Your task to perform on an android device: turn off priority inbox in the gmail app Image 0: 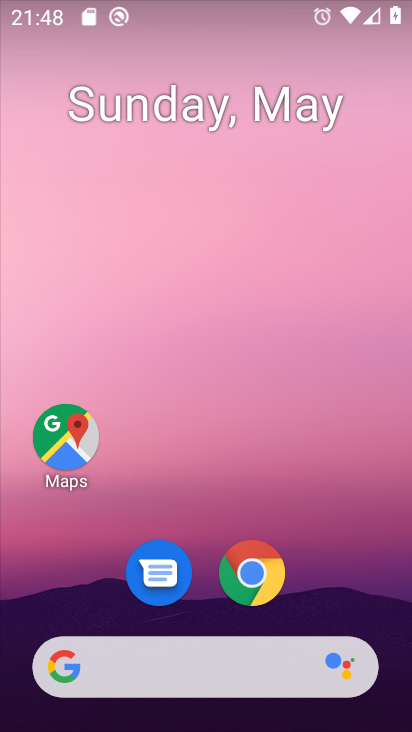
Step 0: drag from (202, 480) to (164, 11)
Your task to perform on an android device: turn off priority inbox in the gmail app Image 1: 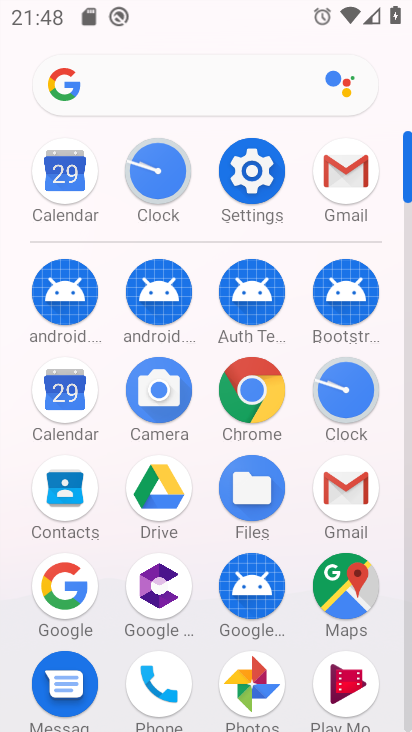
Step 1: click (340, 173)
Your task to perform on an android device: turn off priority inbox in the gmail app Image 2: 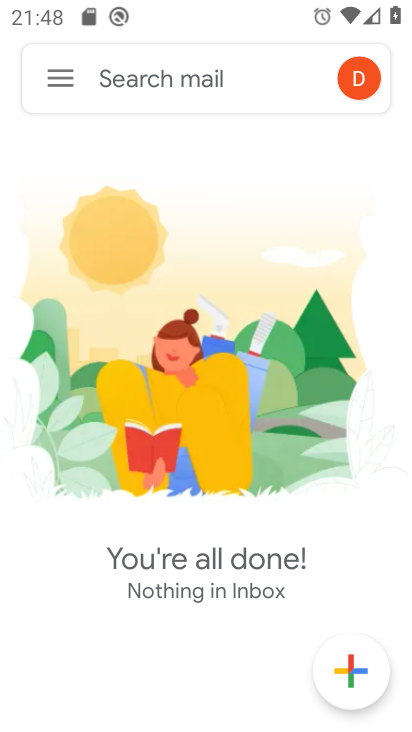
Step 2: click (59, 75)
Your task to perform on an android device: turn off priority inbox in the gmail app Image 3: 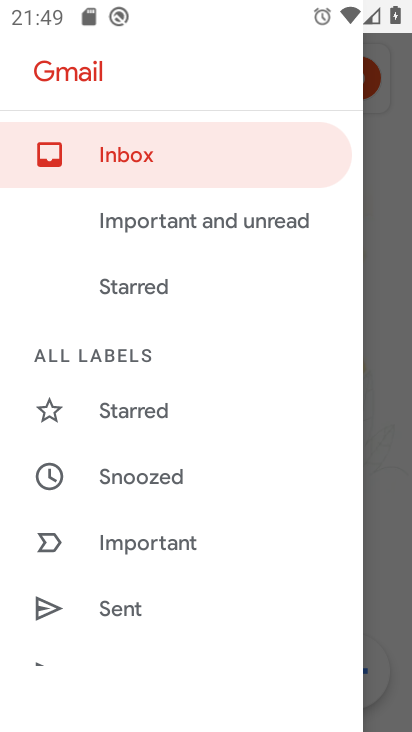
Step 3: drag from (225, 542) to (262, 59)
Your task to perform on an android device: turn off priority inbox in the gmail app Image 4: 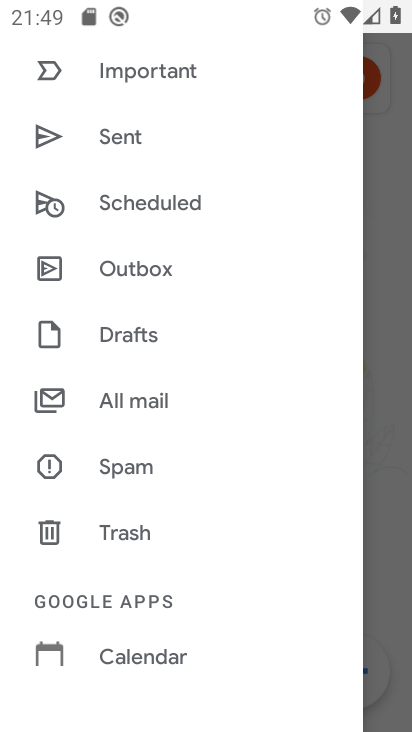
Step 4: drag from (211, 580) to (220, 180)
Your task to perform on an android device: turn off priority inbox in the gmail app Image 5: 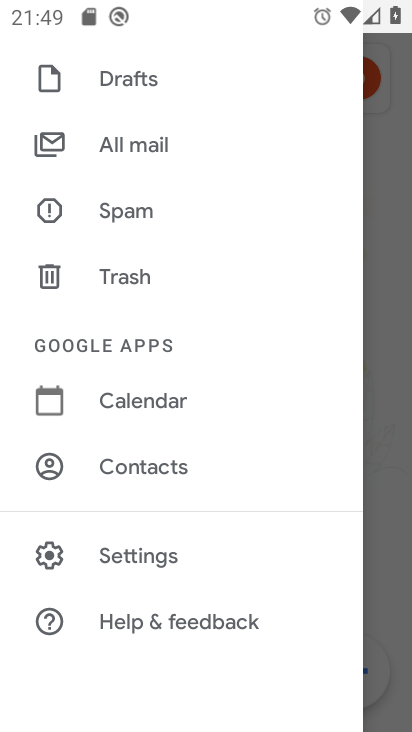
Step 5: click (178, 550)
Your task to perform on an android device: turn off priority inbox in the gmail app Image 6: 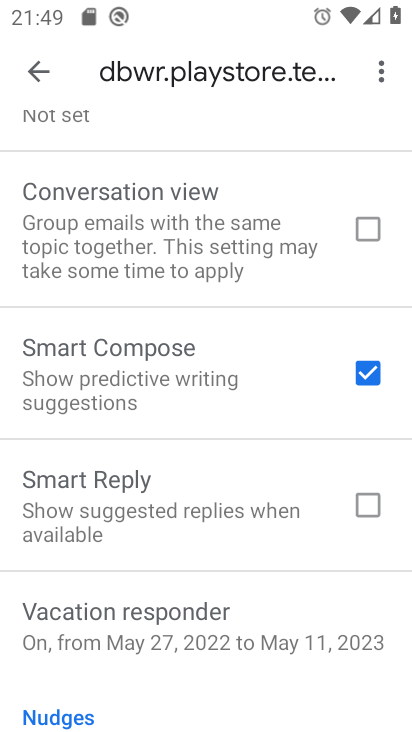
Step 6: task complete